Your task to perform on an android device: What's the weather today? Image 0: 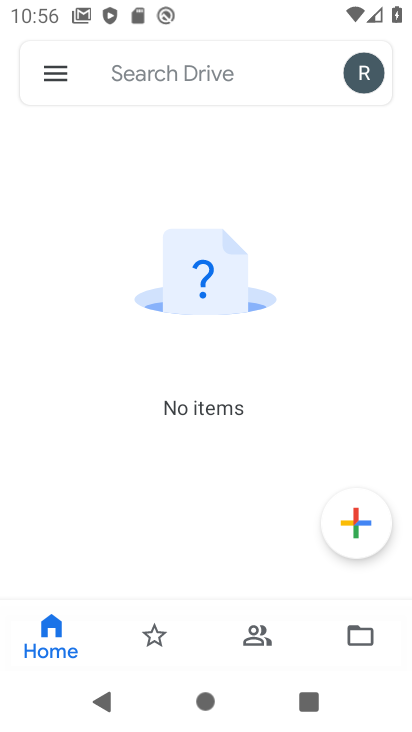
Step 0: press home button
Your task to perform on an android device: What's the weather today? Image 1: 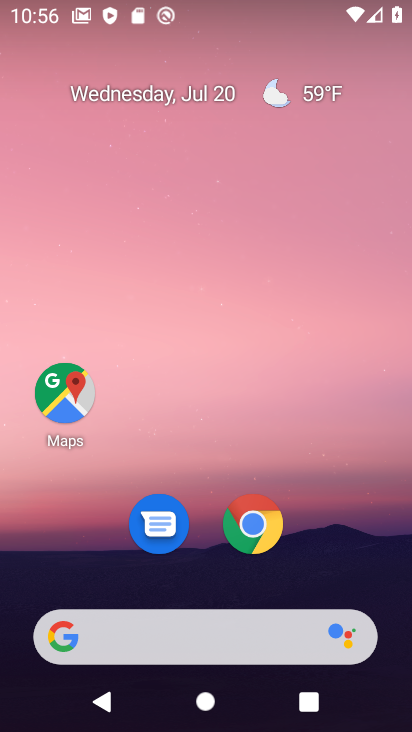
Step 1: click (155, 623)
Your task to perform on an android device: What's the weather today? Image 2: 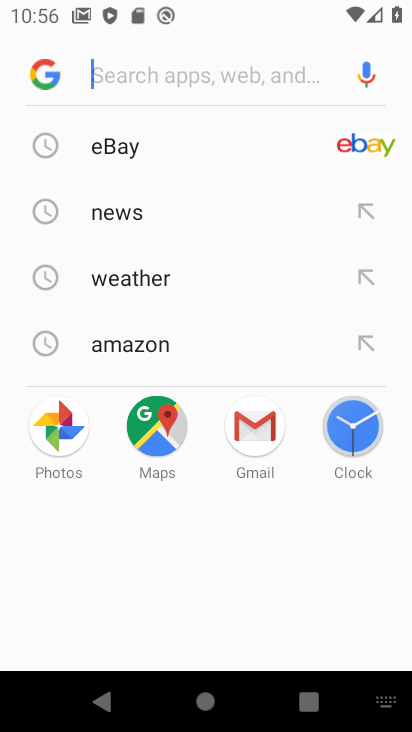
Step 2: click (149, 279)
Your task to perform on an android device: What's the weather today? Image 3: 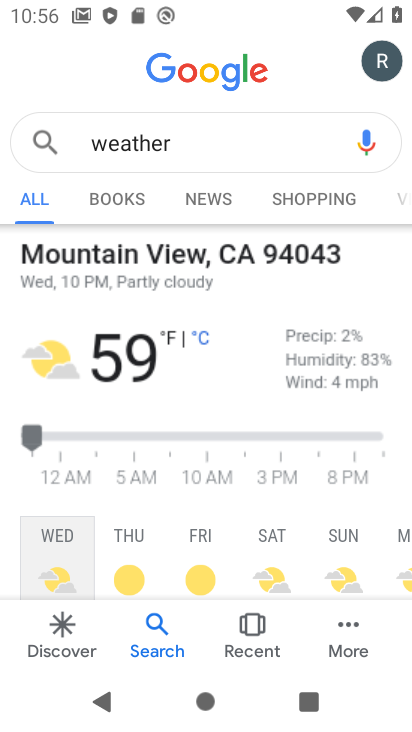
Step 3: task complete